Your task to perform on an android device: Go to sound settings Image 0: 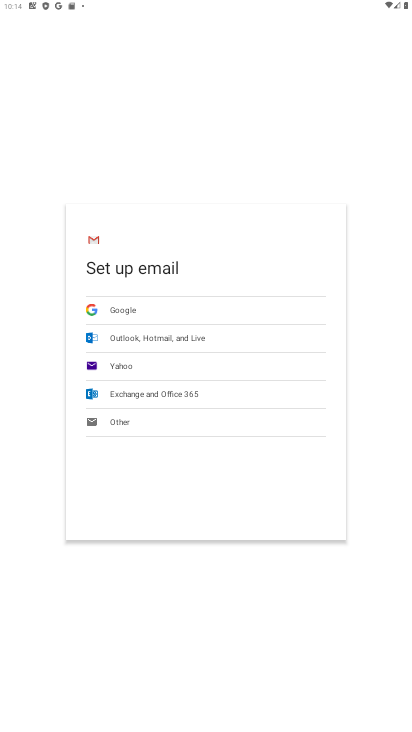
Step 0: press home button
Your task to perform on an android device: Go to sound settings Image 1: 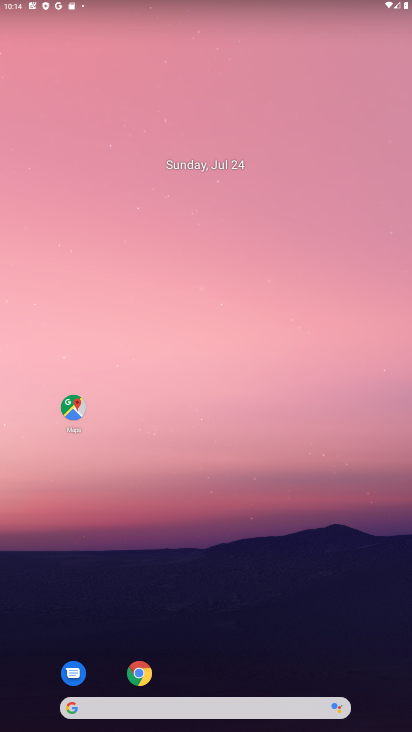
Step 1: drag from (31, 673) to (198, 1)
Your task to perform on an android device: Go to sound settings Image 2: 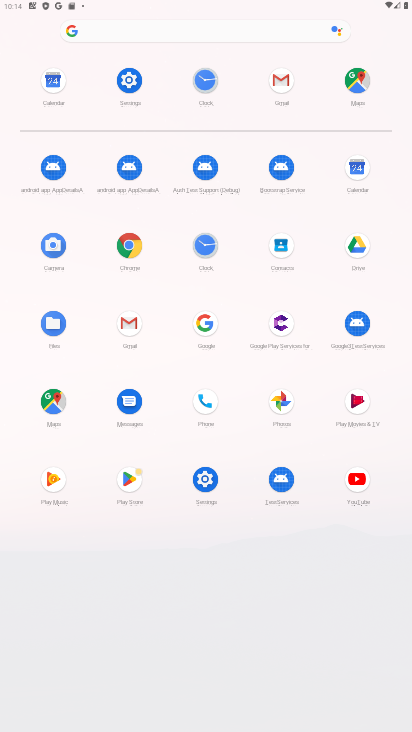
Step 2: click (210, 484)
Your task to perform on an android device: Go to sound settings Image 3: 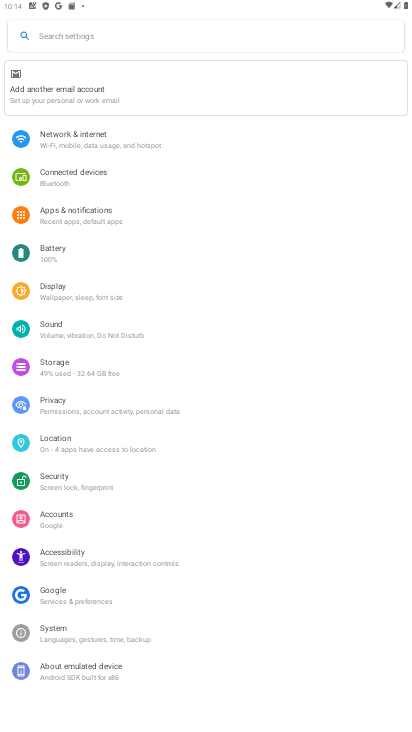
Step 3: click (72, 326)
Your task to perform on an android device: Go to sound settings Image 4: 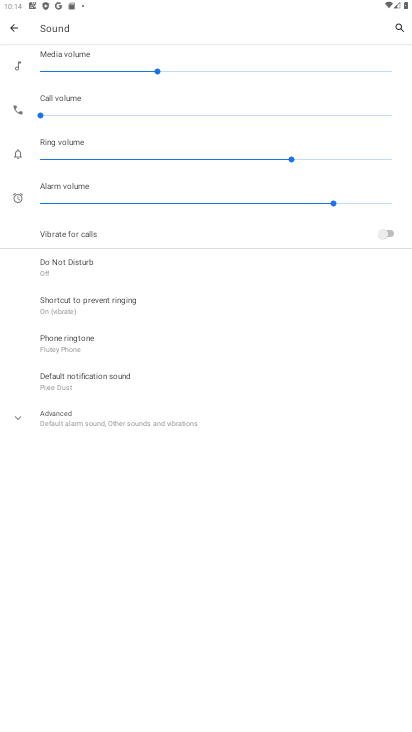
Step 4: task complete